Your task to perform on an android device: delete a single message in the gmail app Image 0: 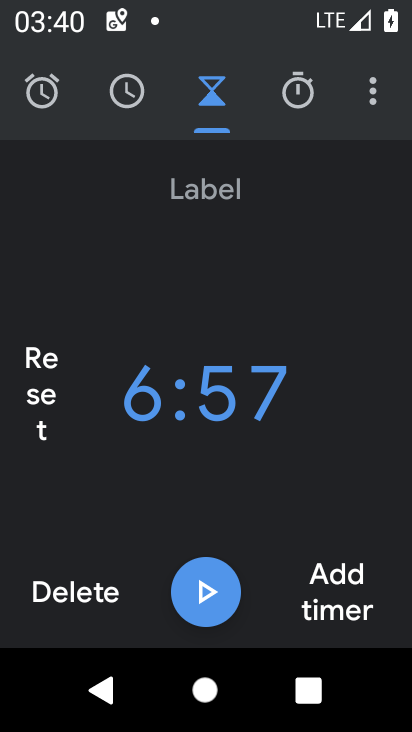
Step 0: press home button
Your task to perform on an android device: delete a single message in the gmail app Image 1: 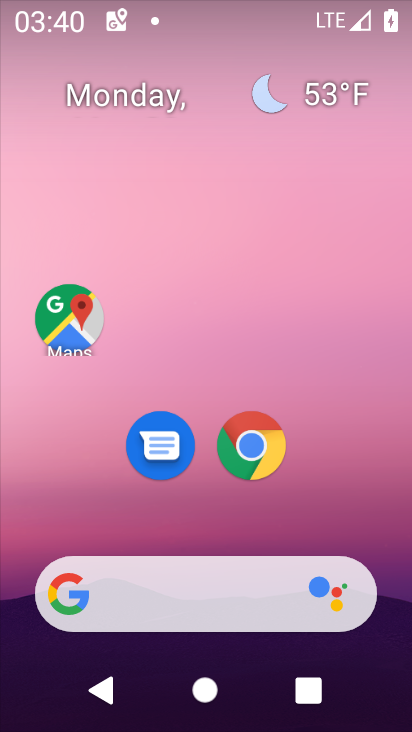
Step 1: drag from (201, 475) to (221, 312)
Your task to perform on an android device: delete a single message in the gmail app Image 2: 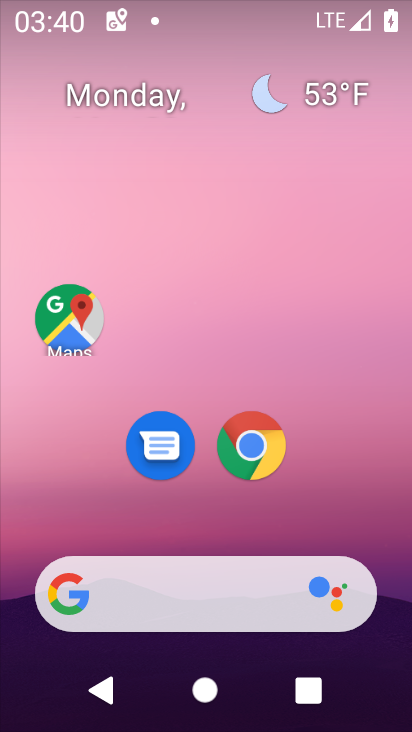
Step 2: drag from (224, 518) to (306, 13)
Your task to perform on an android device: delete a single message in the gmail app Image 3: 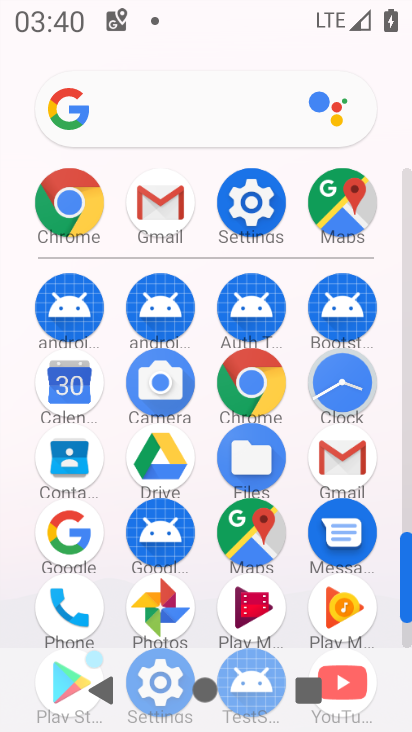
Step 3: click (366, 459)
Your task to perform on an android device: delete a single message in the gmail app Image 4: 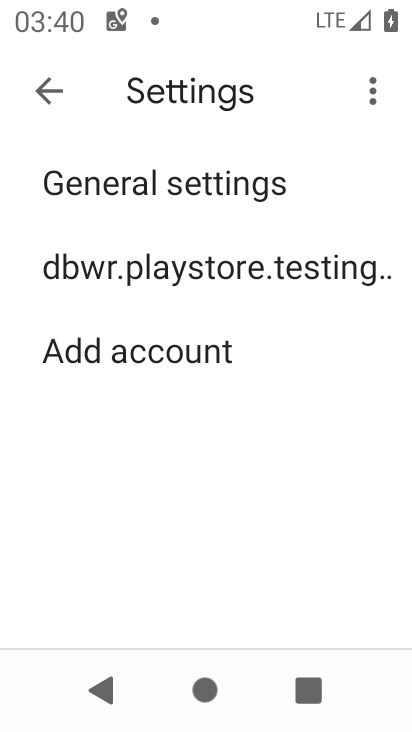
Step 4: click (60, 113)
Your task to perform on an android device: delete a single message in the gmail app Image 5: 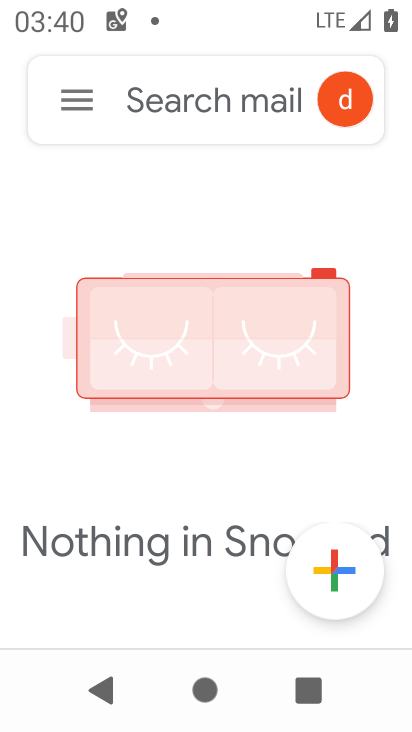
Step 5: click (58, 113)
Your task to perform on an android device: delete a single message in the gmail app Image 6: 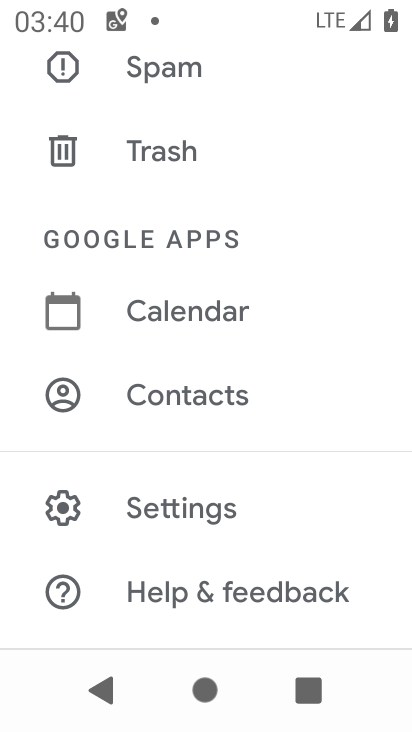
Step 6: drag from (208, 238) to (236, 460)
Your task to perform on an android device: delete a single message in the gmail app Image 7: 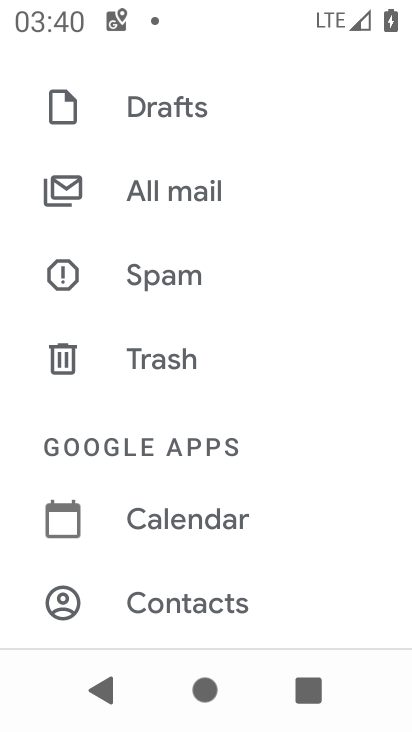
Step 7: click (201, 211)
Your task to perform on an android device: delete a single message in the gmail app Image 8: 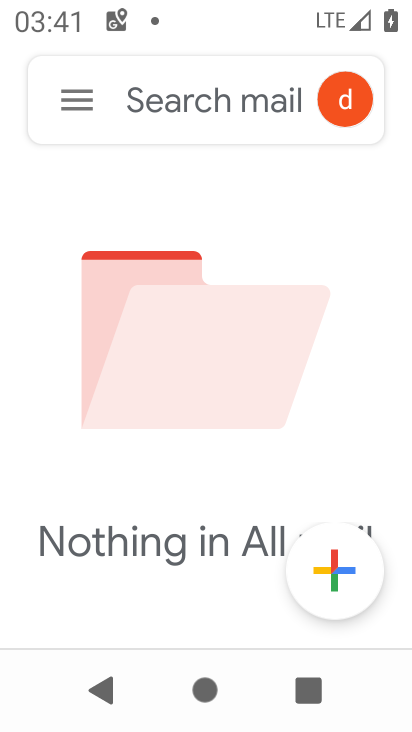
Step 8: task complete